Your task to perform on an android device: turn off wifi Image 0: 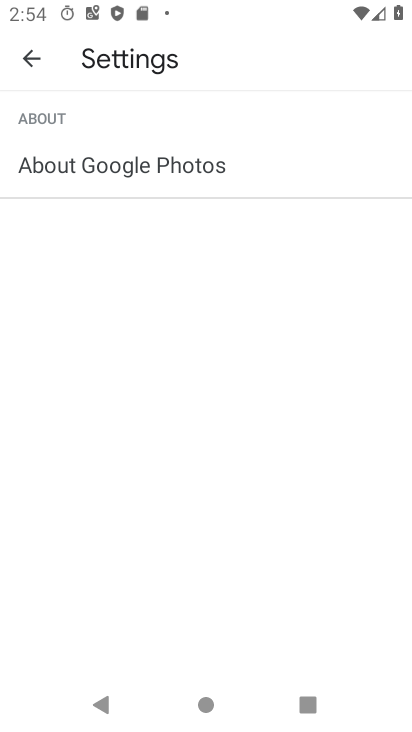
Step 0: drag from (278, 6) to (315, 414)
Your task to perform on an android device: turn off wifi Image 1: 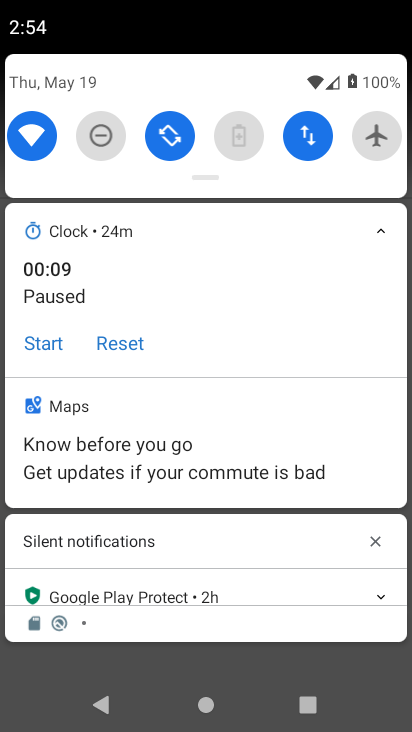
Step 1: click (32, 132)
Your task to perform on an android device: turn off wifi Image 2: 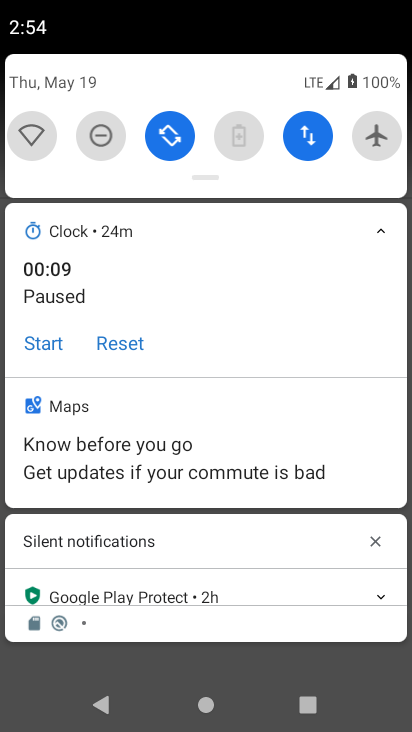
Step 2: task complete